Your task to perform on an android device: Do I have any events tomorrow? Image 0: 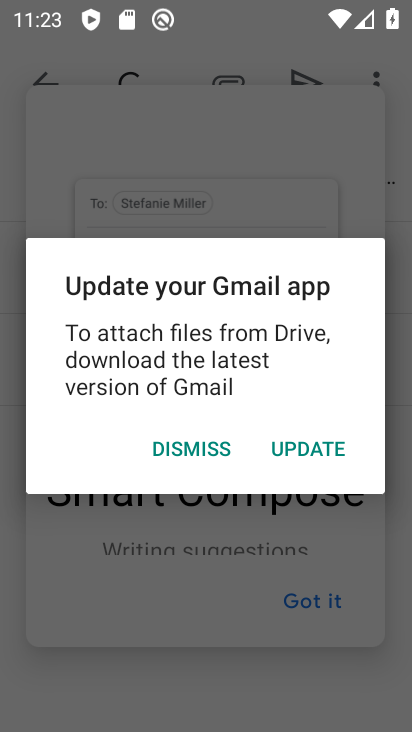
Step 0: press home button
Your task to perform on an android device: Do I have any events tomorrow? Image 1: 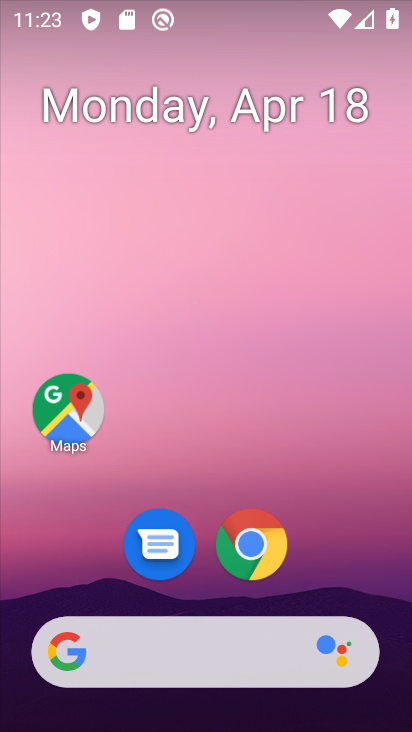
Step 1: drag from (362, 601) to (380, 26)
Your task to perform on an android device: Do I have any events tomorrow? Image 2: 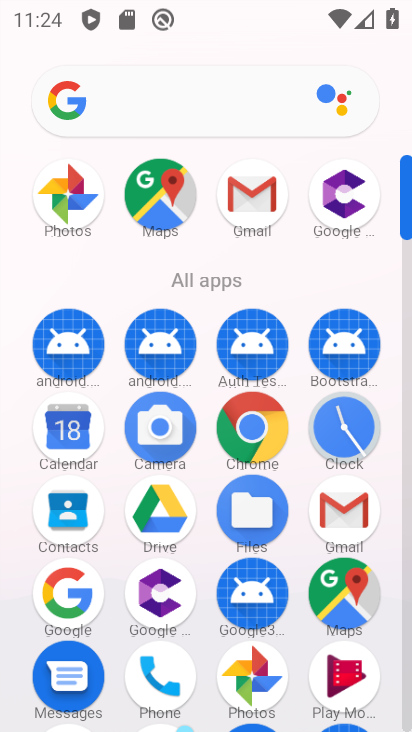
Step 2: click (59, 419)
Your task to perform on an android device: Do I have any events tomorrow? Image 3: 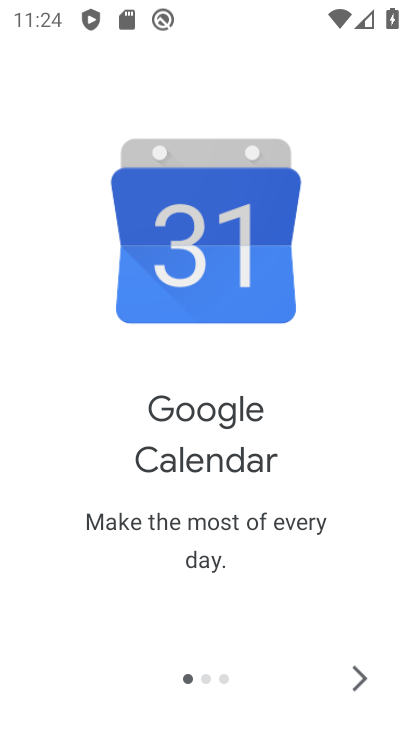
Step 3: click (360, 682)
Your task to perform on an android device: Do I have any events tomorrow? Image 4: 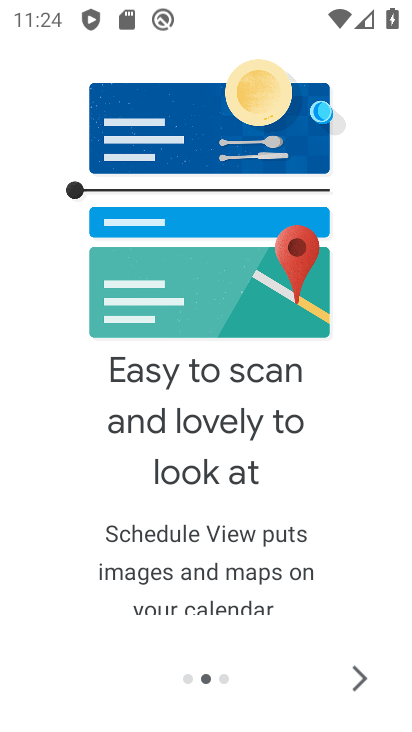
Step 4: click (360, 682)
Your task to perform on an android device: Do I have any events tomorrow? Image 5: 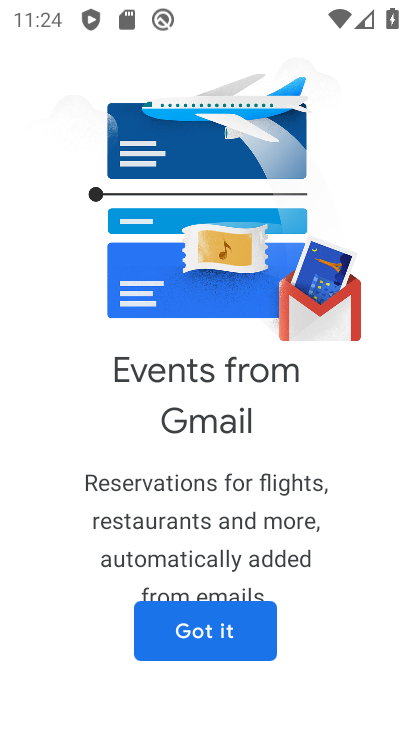
Step 5: click (225, 632)
Your task to perform on an android device: Do I have any events tomorrow? Image 6: 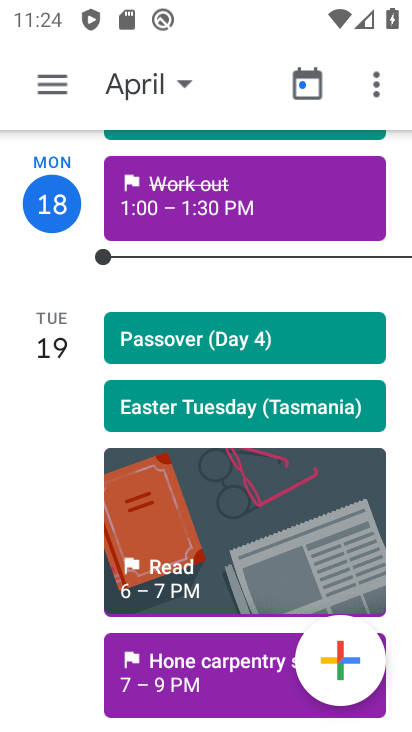
Step 6: click (179, 89)
Your task to perform on an android device: Do I have any events tomorrow? Image 7: 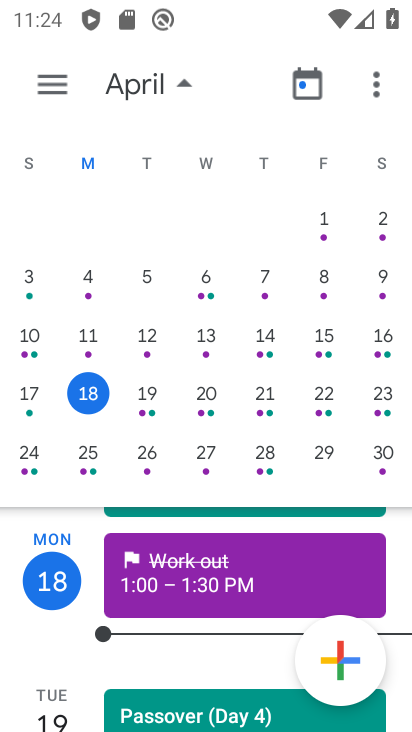
Step 7: click (146, 396)
Your task to perform on an android device: Do I have any events tomorrow? Image 8: 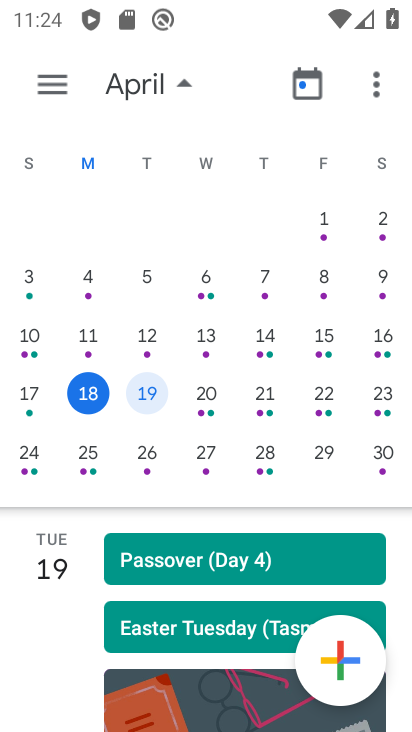
Step 8: drag from (170, 562) to (183, 343)
Your task to perform on an android device: Do I have any events tomorrow? Image 9: 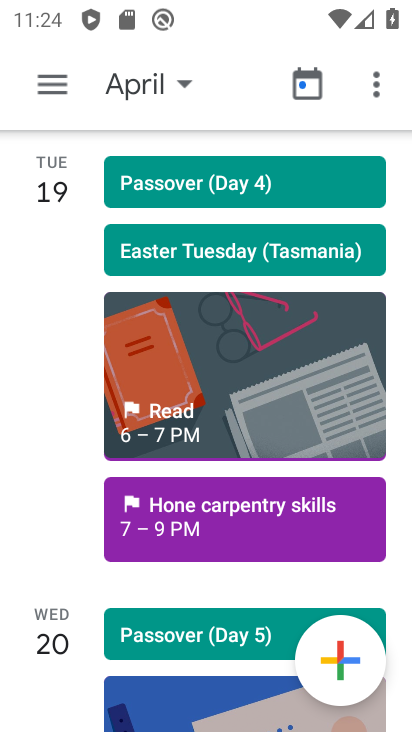
Step 9: click (206, 508)
Your task to perform on an android device: Do I have any events tomorrow? Image 10: 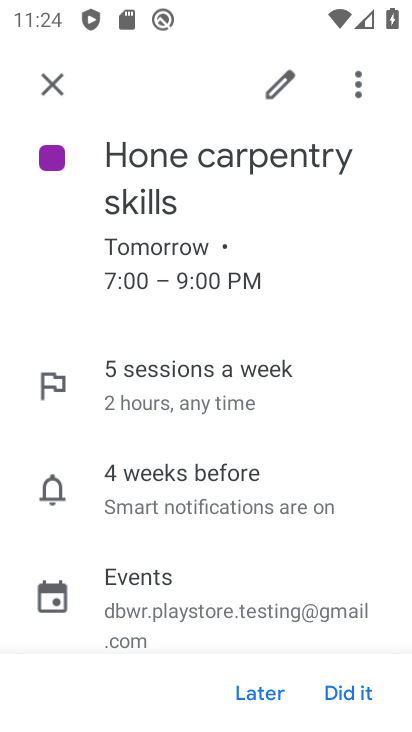
Step 10: task complete